Your task to perform on an android device: open wifi settings Image 0: 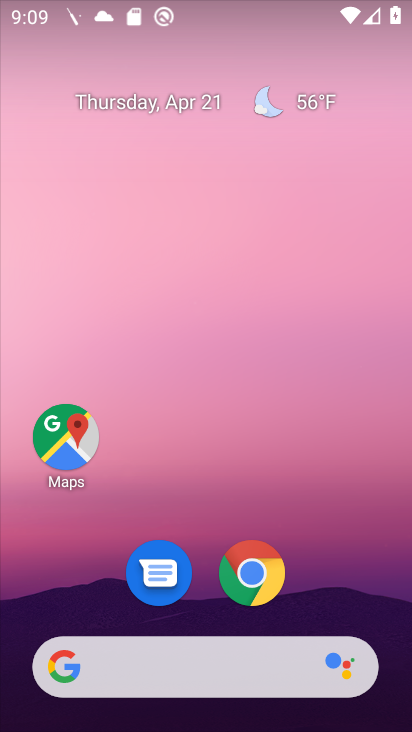
Step 0: drag from (317, 462) to (355, 97)
Your task to perform on an android device: open wifi settings Image 1: 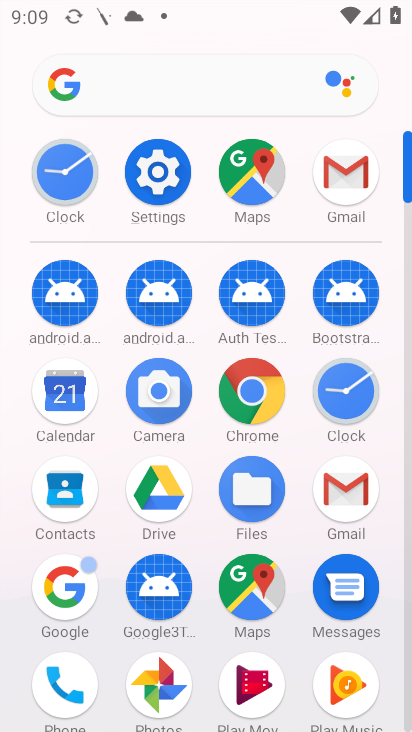
Step 1: click (173, 207)
Your task to perform on an android device: open wifi settings Image 2: 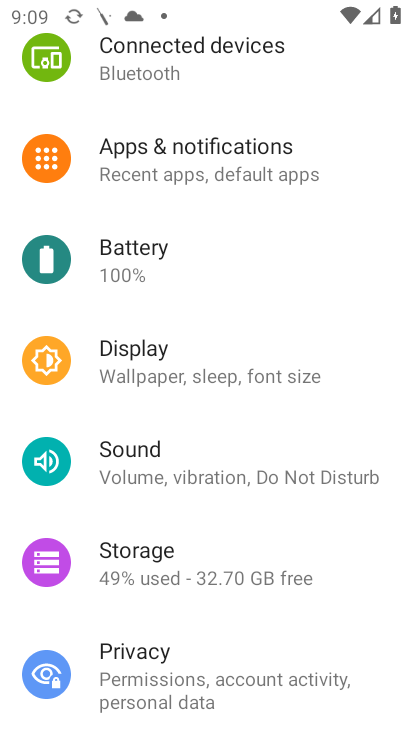
Step 2: drag from (228, 119) to (229, 370)
Your task to perform on an android device: open wifi settings Image 3: 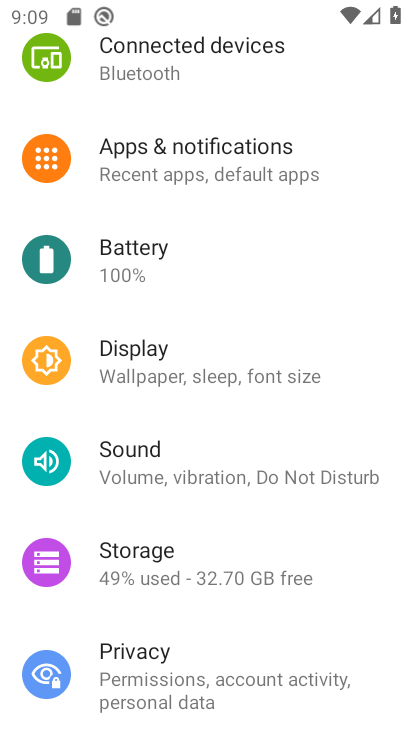
Step 3: drag from (186, 108) to (182, 377)
Your task to perform on an android device: open wifi settings Image 4: 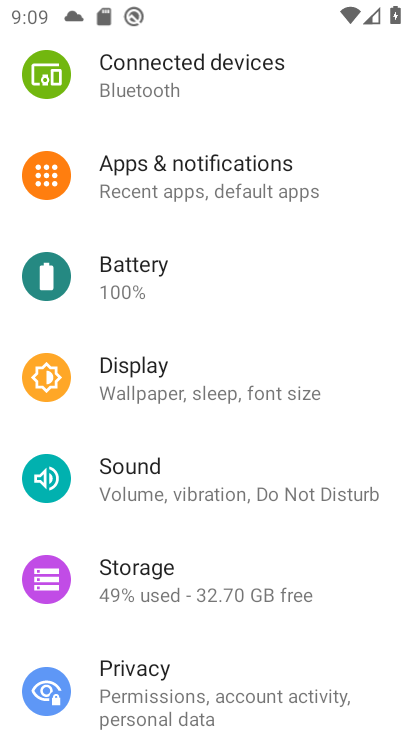
Step 4: drag from (229, 227) to (207, 521)
Your task to perform on an android device: open wifi settings Image 5: 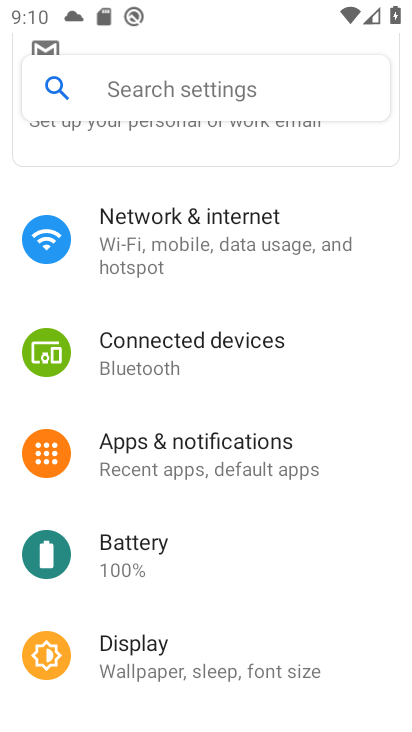
Step 5: click (200, 233)
Your task to perform on an android device: open wifi settings Image 6: 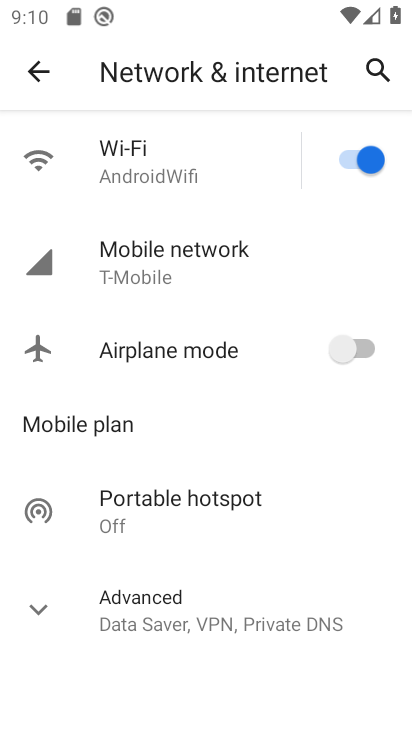
Step 6: click (121, 148)
Your task to perform on an android device: open wifi settings Image 7: 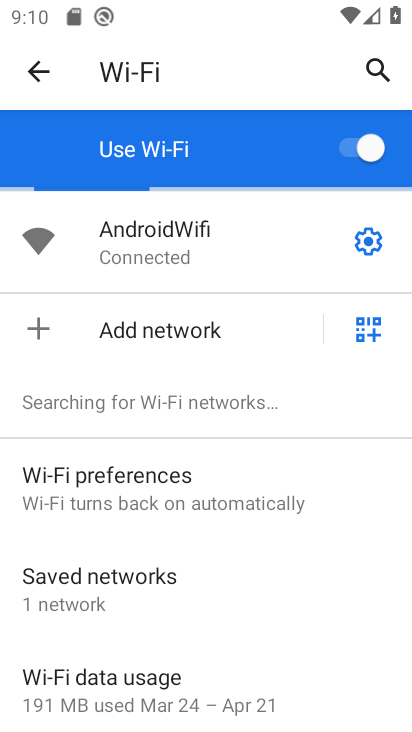
Step 7: task complete